Your task to perform on an android device: Go to battery settings Image 0: 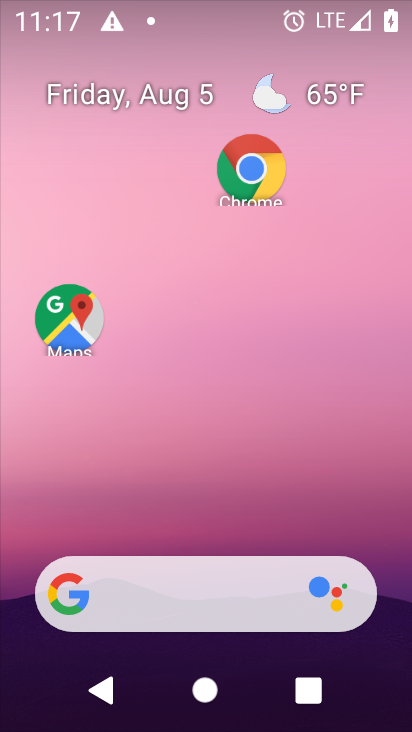
Step 0: drag from (208, 529) to (201, 126)
Your task to perform on an android device: Go to battery settings Image 1: 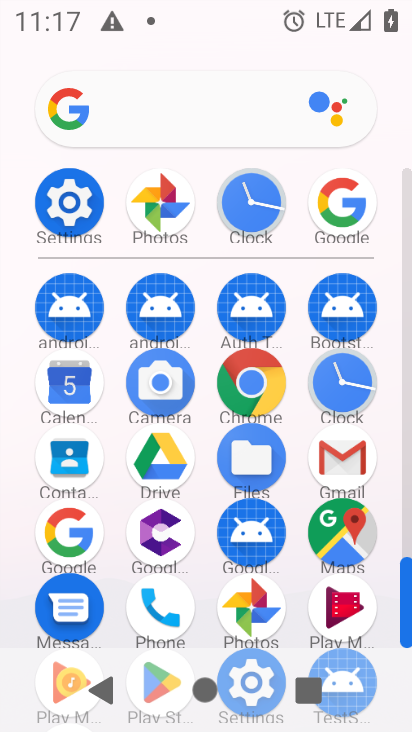
Step 1: click (55, 206)
Your task to perform on an android device: Go to battery settings Image 2: 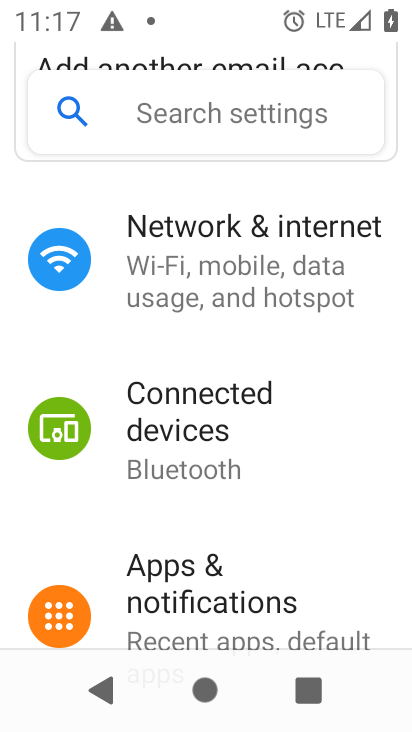
Step 2: drag from (167, 313) to (168, 218)
Your task to perform on an android device: Go to battery settings Image 3: 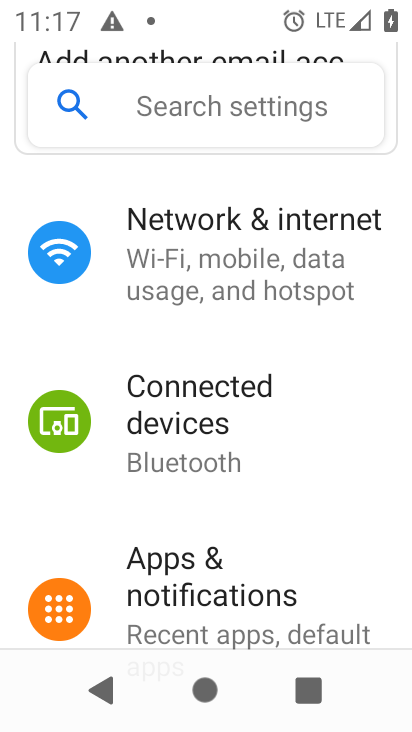
Step 3: drag from (235, 551) to (235, 233)
Your task to perform on an android device: Go to battery settings Image 4: 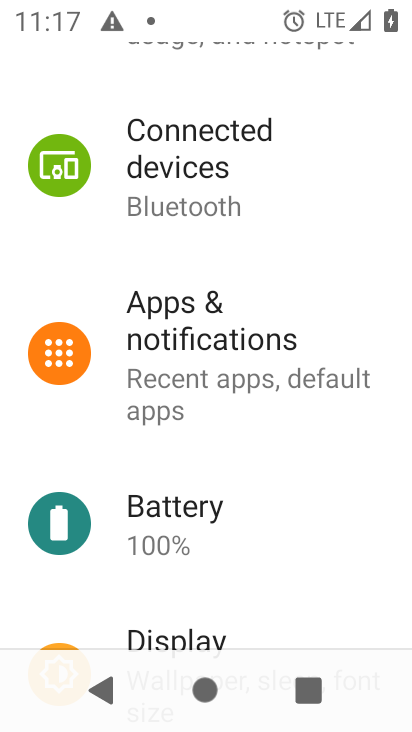
Step 4: click (201, 503)
Your task to perform on an android device: Go to battery settings Image 5: 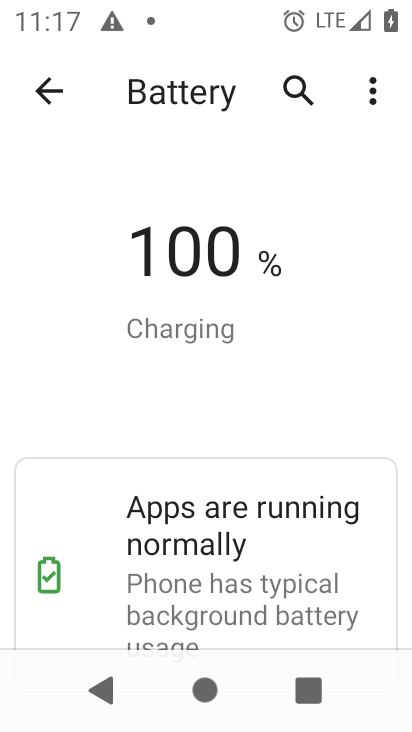
Step 5: task complete